Your task to perform on an android device: add a contact in the contacts app Image 0: 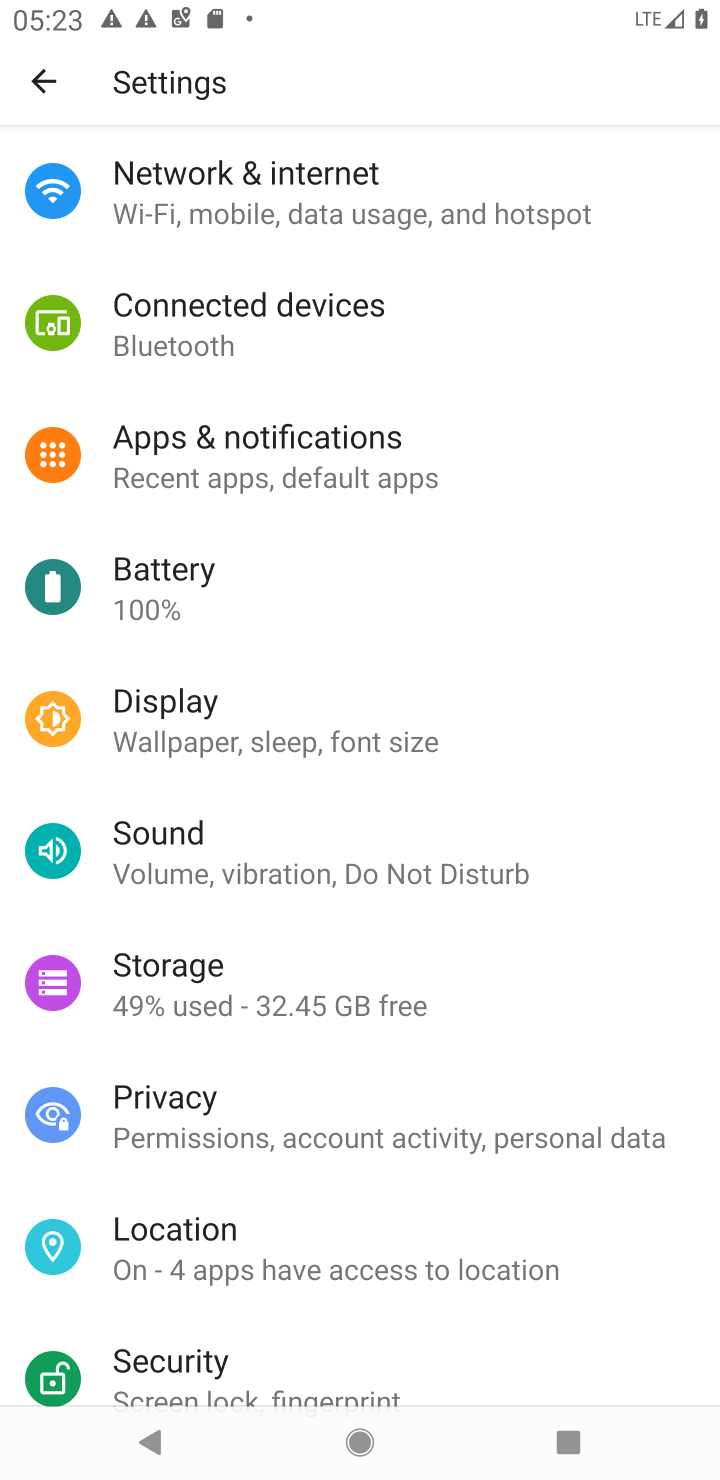
Step 0: press home button
Your task to perform on an android device: add a contact in the contacts app Image 1: 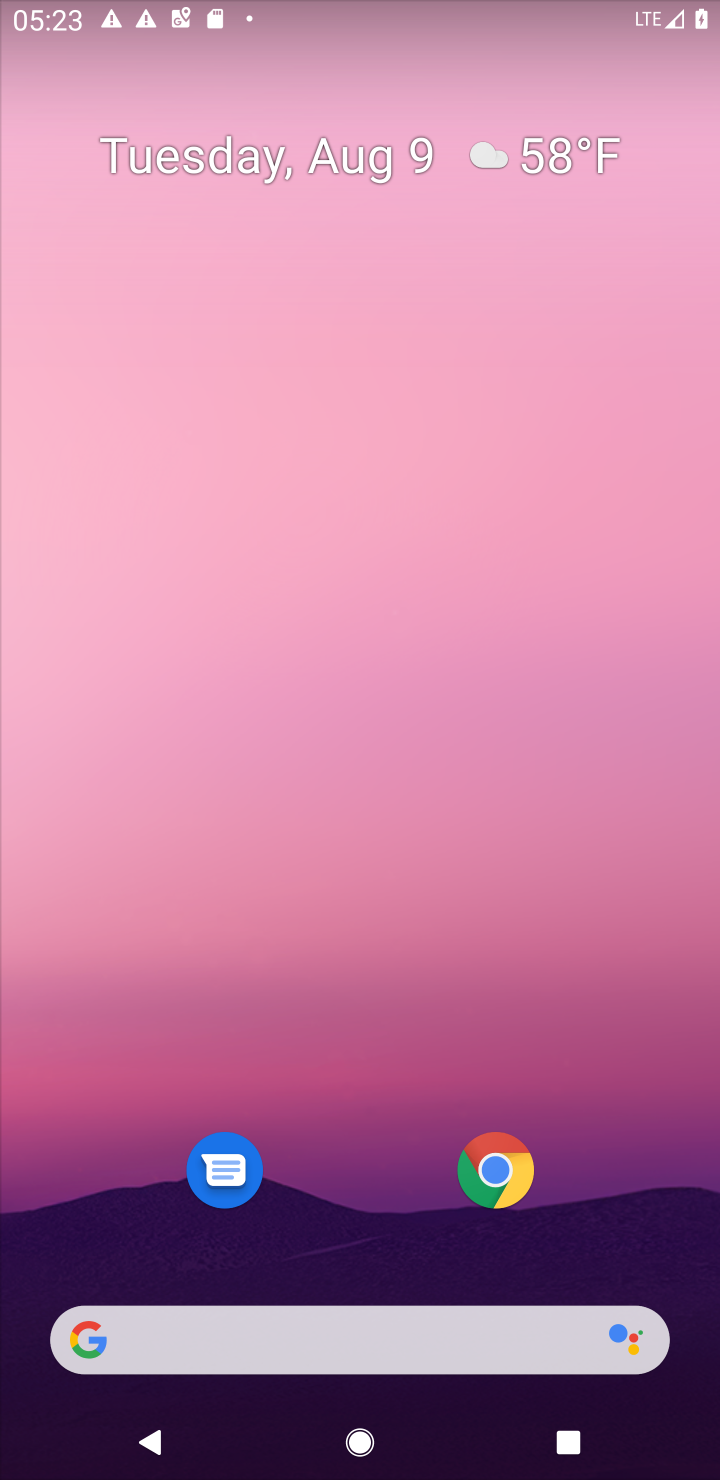
Step 1: drag from (400, 1232) to (447, 135)
Your task to perform on an android device: add a contact in the contacts app Image 2: 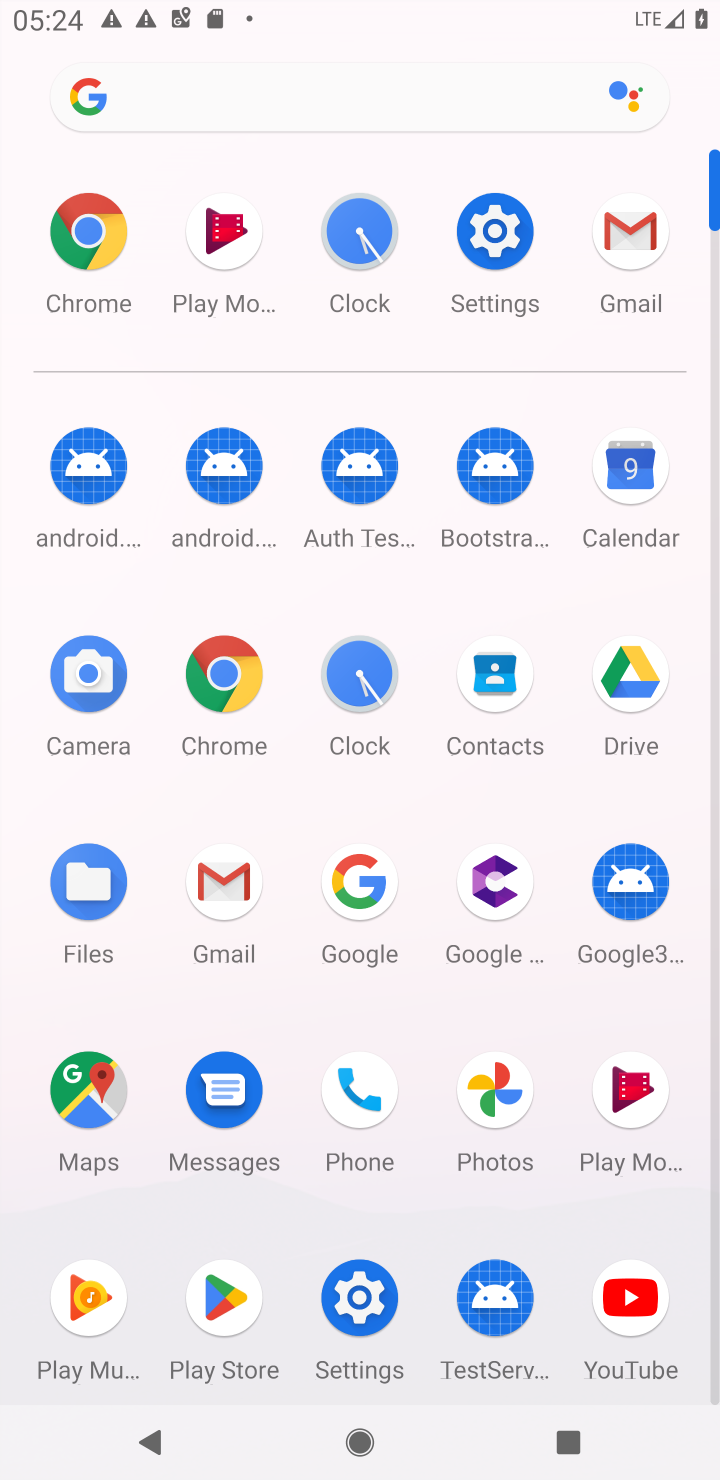
Step 2: click (496, 680)
Your task to perform on an android device: add a contact in the contacts app Image 3: 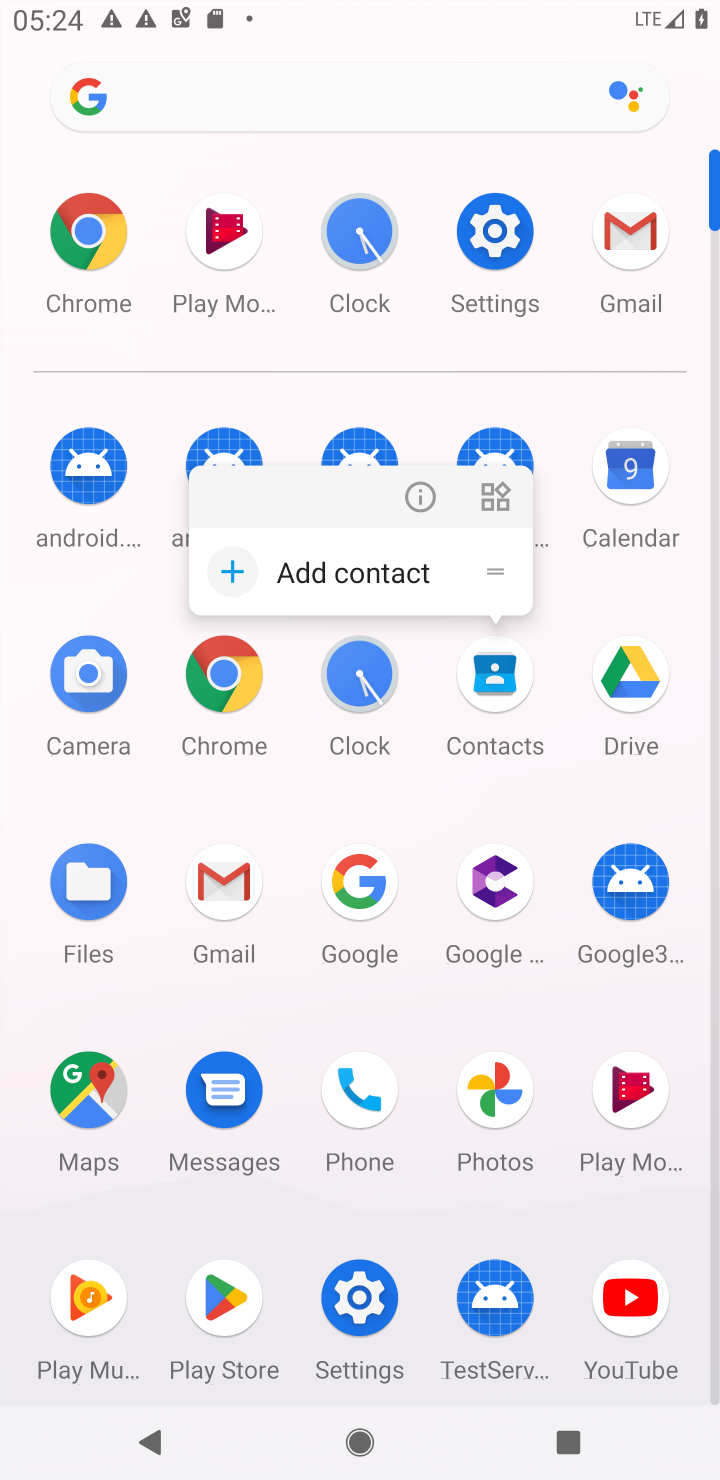
Step 3: click (496, 680)
Your task to perform on an android device: add a contact in the contacts app Image 4: 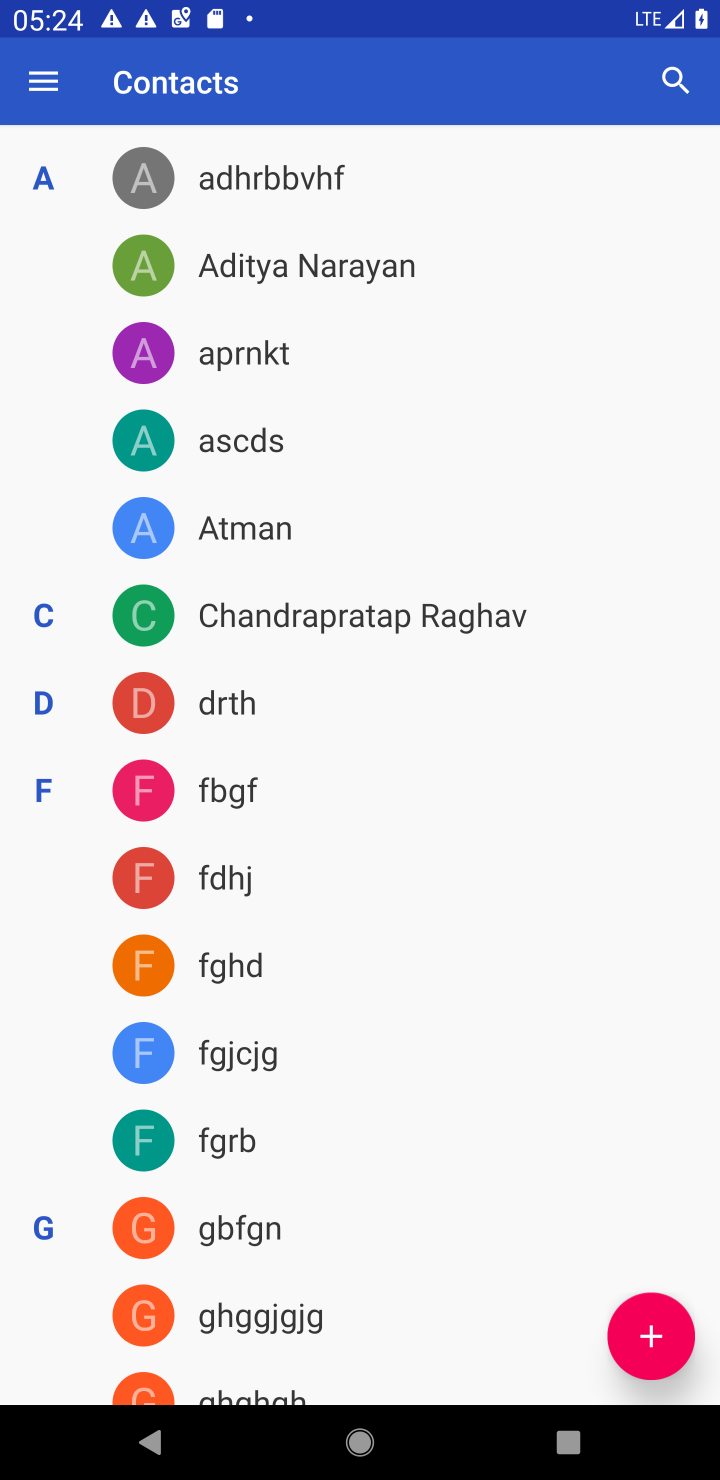
Step 4: click (638, 1340)
Your task to perform on an android device: add a contact in the contacts app Image 5: 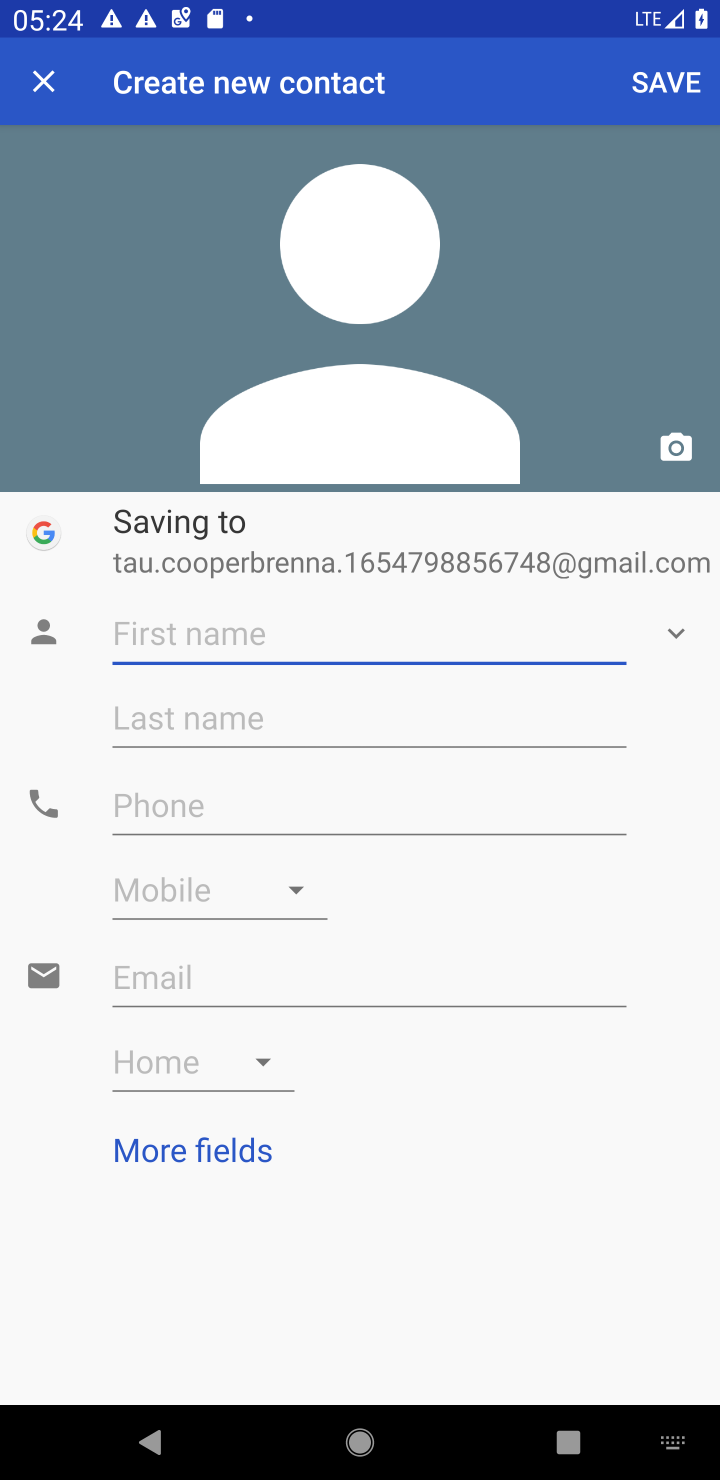
Step 5: type "ghghghgh"
Your task to perform on an android device: add a contact in the contacts app Image 6: 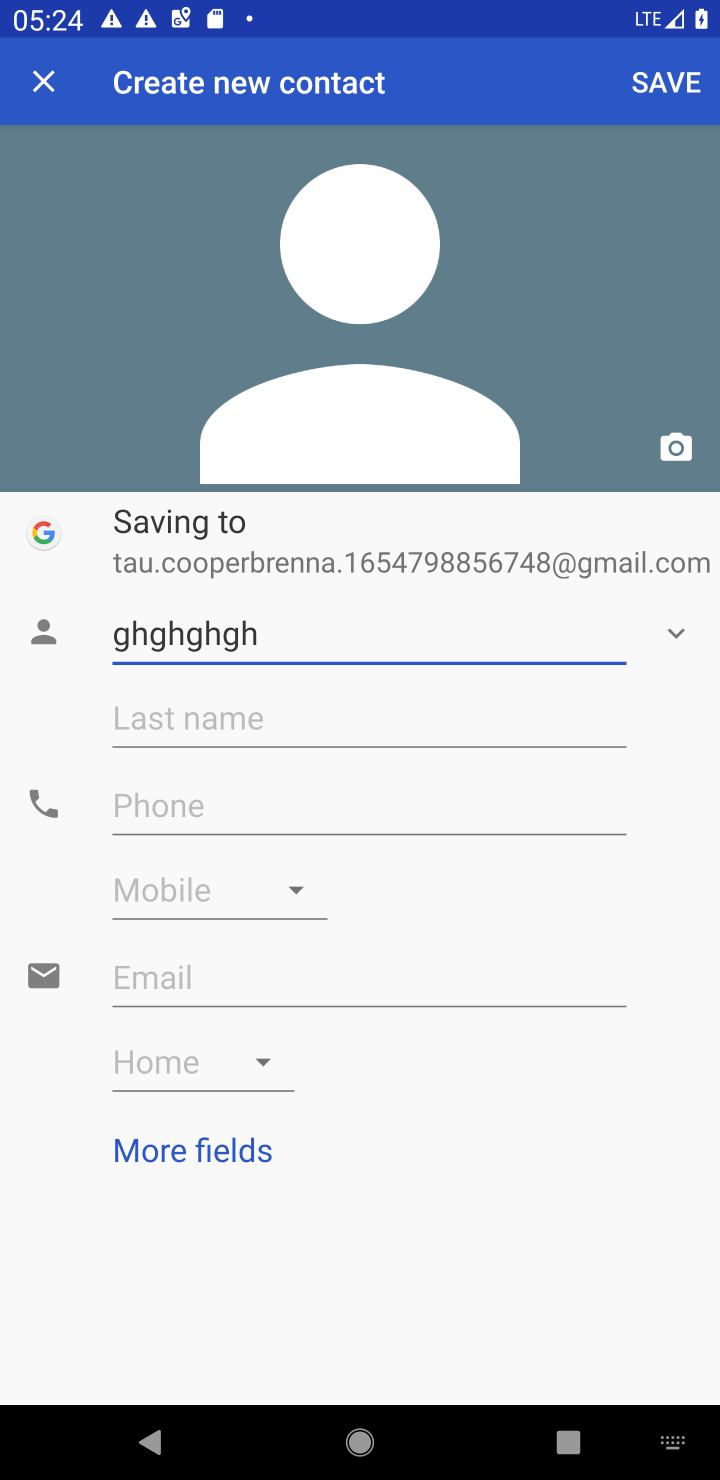
Step 6: click (337, 789)
Your task to perform on an android device: add a contact in the contacts app Image 7: 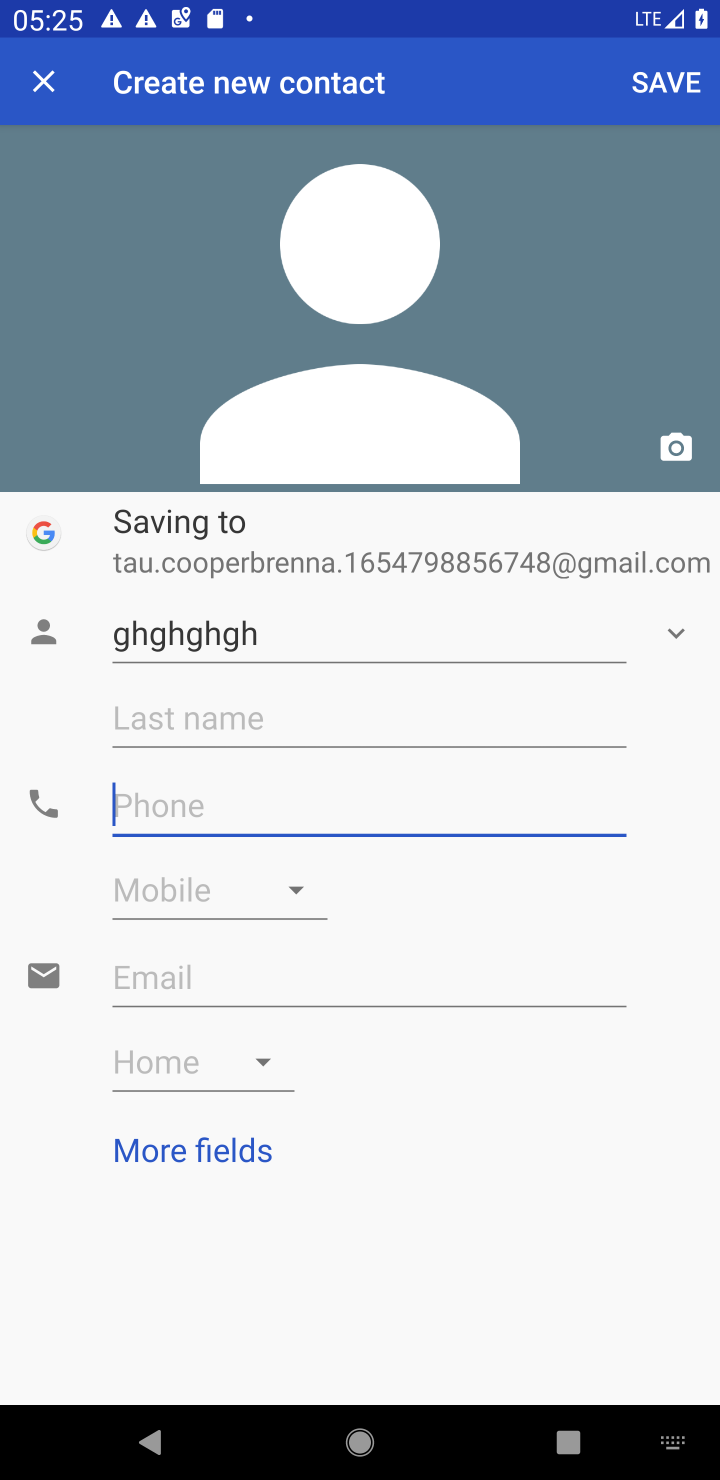
Step 7: type "878797979"
Your task to perform on an android device: add a contact in the contacts app Image 8: 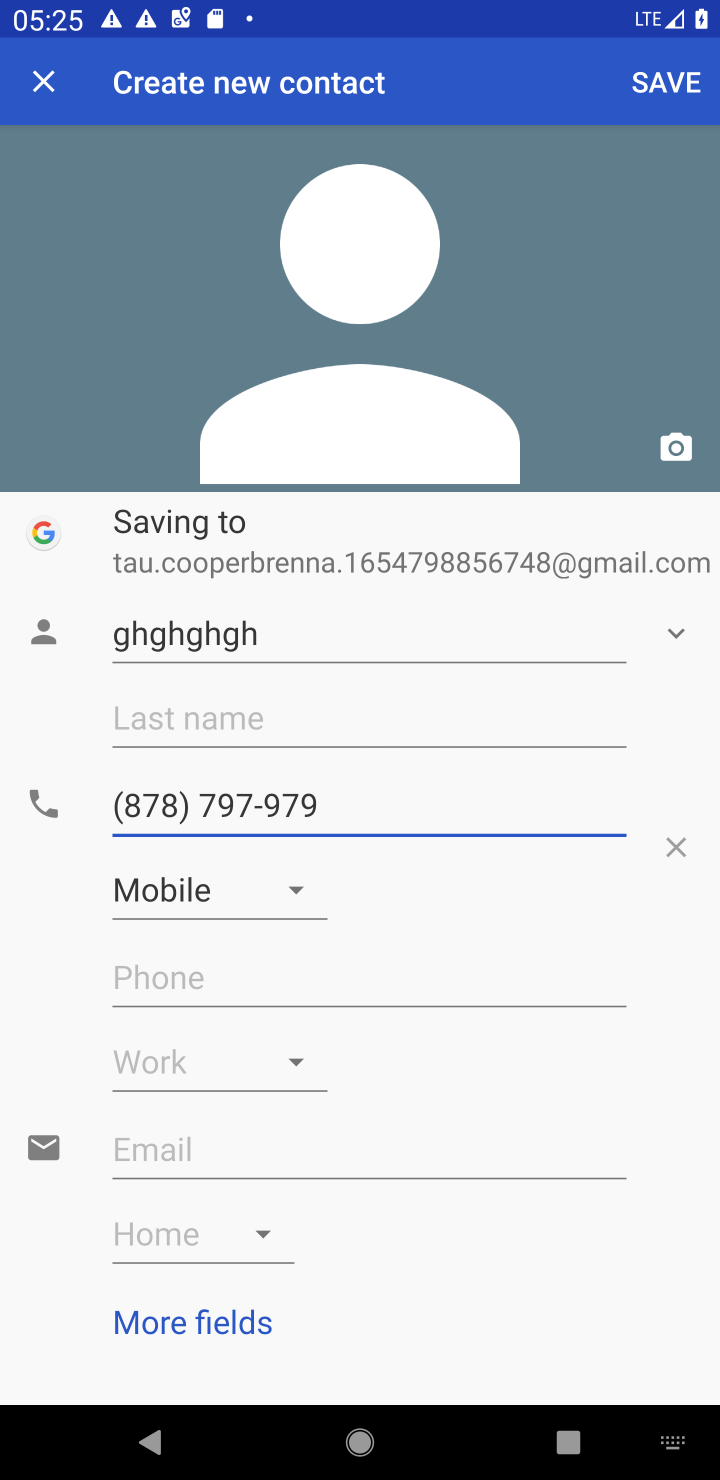
Step 8: click (666, 78)
Your task to perform on an android device: add a contact in the contacts app Image 9: 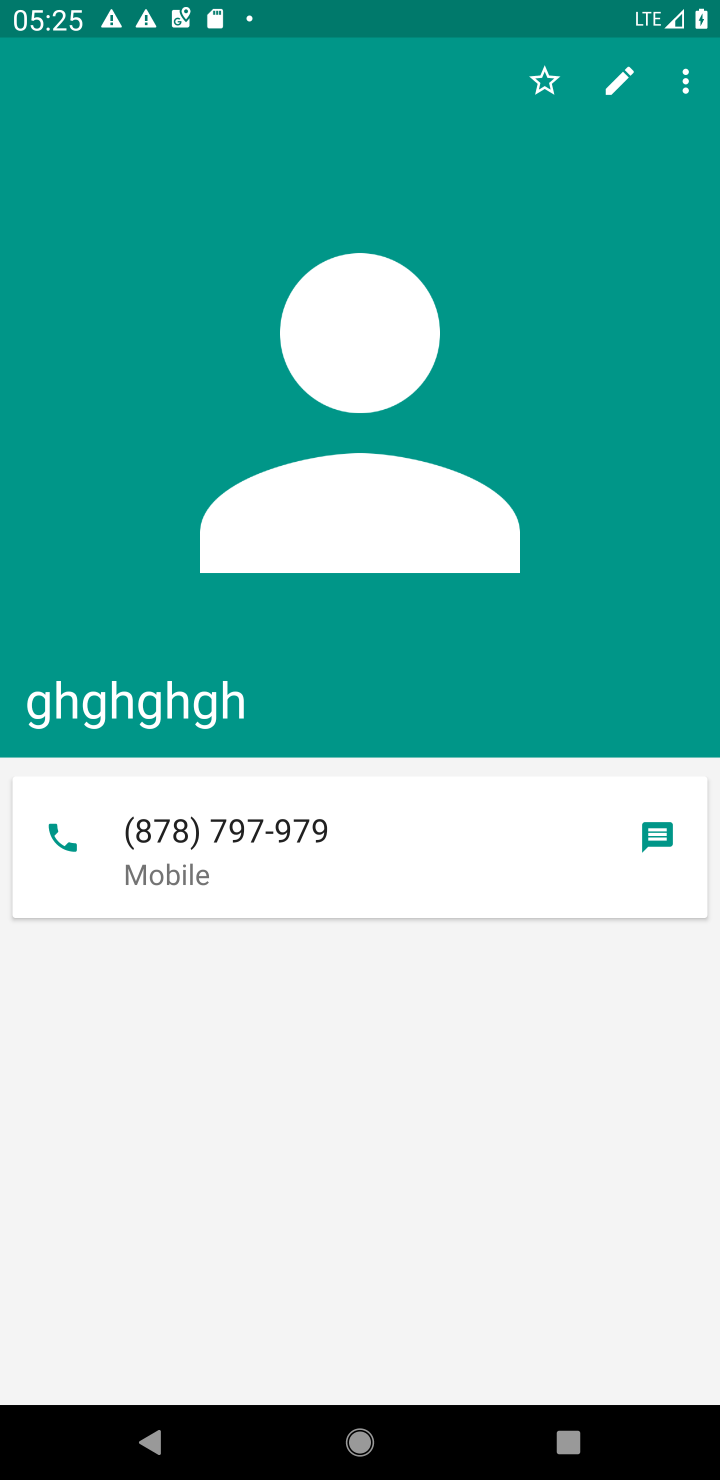
Step 9: task complete